Your task to perform on an android device: choose inbox layout in the gmail app Image 0: 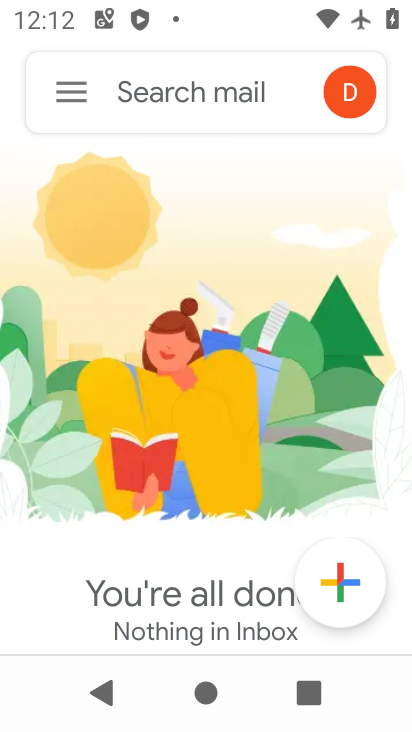
Step 0: drag from (192, 546) to (249, 258)
Your task to perform on an android device: choose inbox layout in the gmail app Image 1: 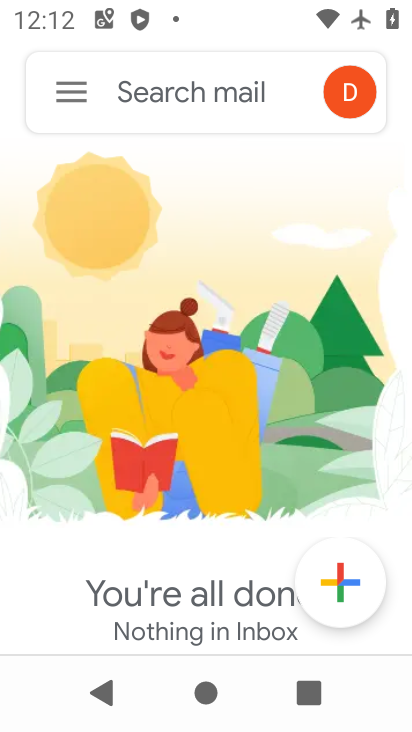
Step 1: click (65, 67)
Your task to perform on an android device: choose inbox layout in the gmail app Image 2: 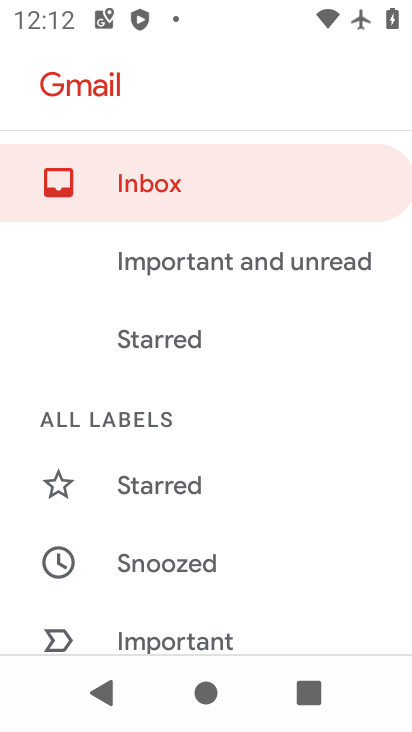
Step 2: click (132, 195)
Your task to perform on an android device: choose inbox layout in the gmail app Image 3: 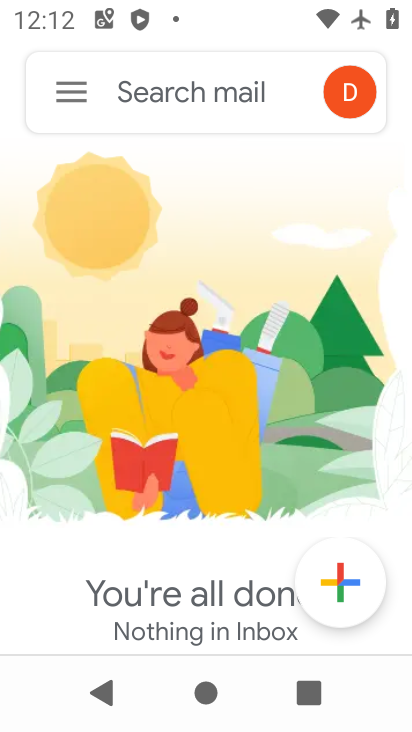
Step 3: task complete